Your task to perform on an android device: stop showing notifications on the lock screen Image 0: 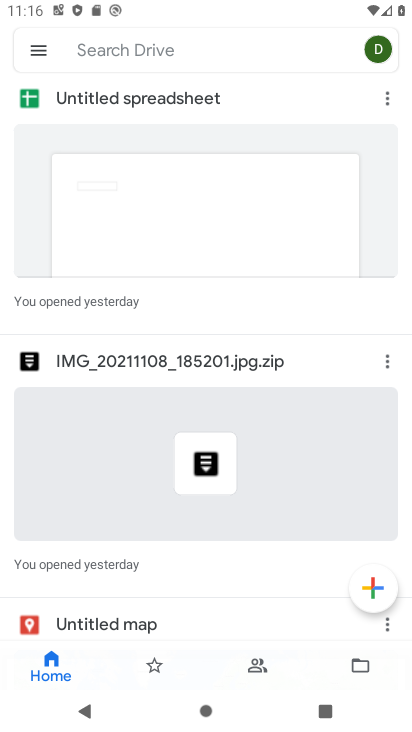
Step 0: press home button
Your task to perform on an android device: stop showing notifications on the lock screen Image 1: 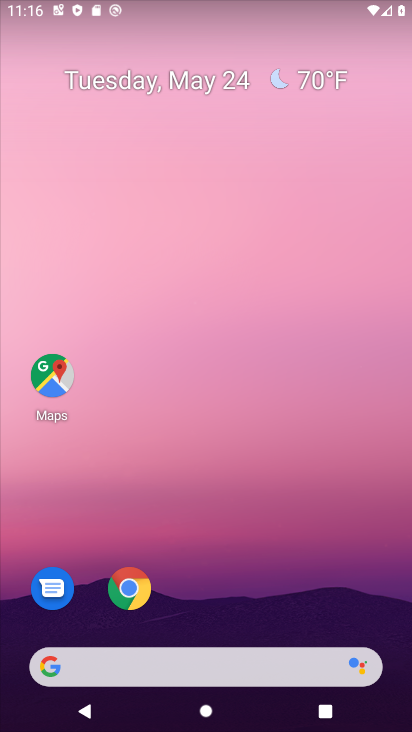
Step 1: drag from (201, 603) to (194, 32)
Your task to perform on an android device: stop showing notifications on the lock screen Image 2: 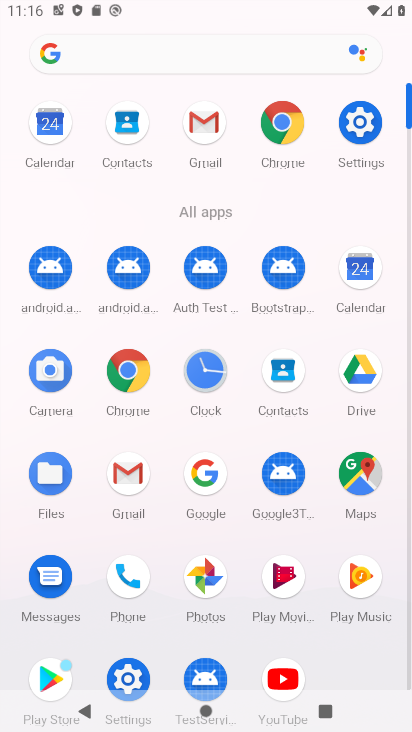
Step 2: click (357, 117)
Your task to perform on an android device: stop showing notifications on the lock screen Image 3: 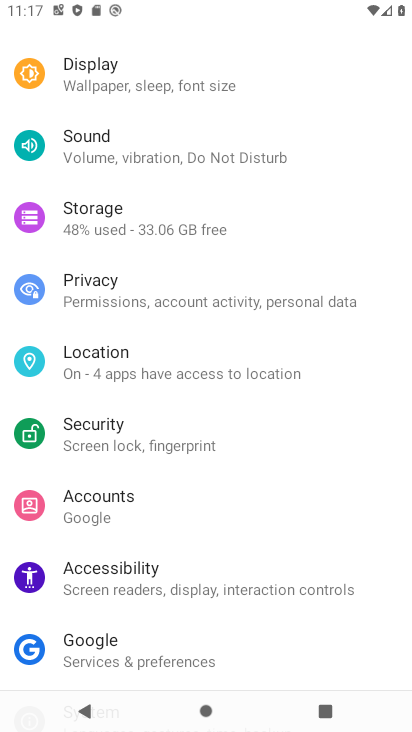
Step 3: drag from (153, 114) to (174, 589)
Your task to perform on an android device: stop showing notifications on the lock screen Image 4: 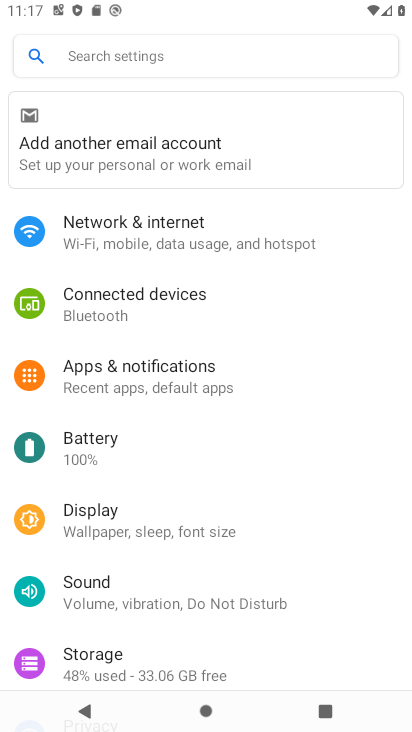
Step 4: click (236, 363)
Your task to perform on an android device: stop showing notifications on the lock screen Image 5: 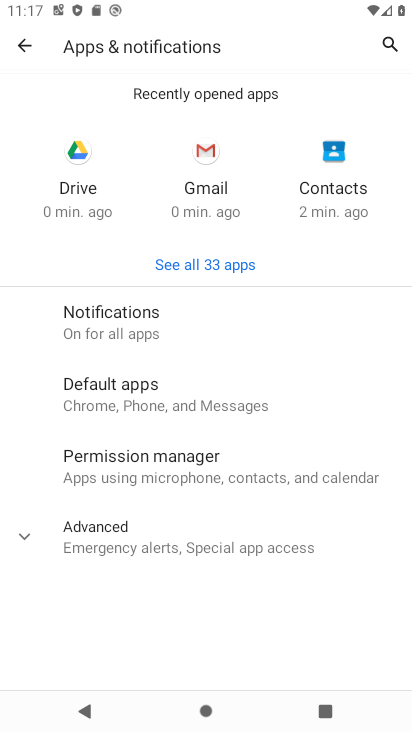
Step 5: click (172, 319)
Your task to perform on an android device: stop showing notifications on the lock screen Image 6: 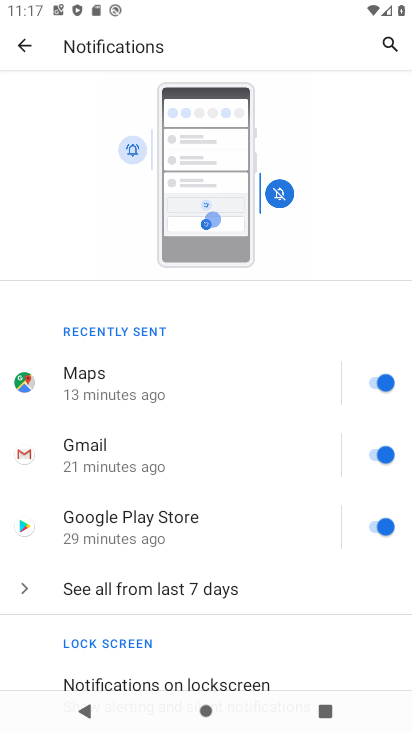
Step 6: drag from (216, 641) to (227, 302)
Your task to perform on an android device: stop showing notifications on the lock screen Image 7: 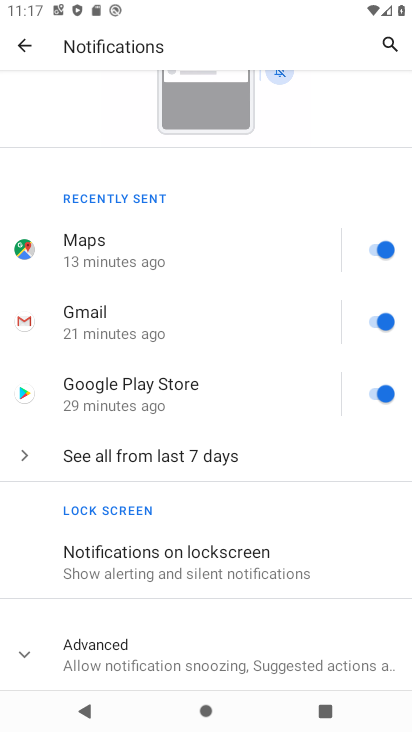
Step 7: click (285, 555)
Your task to perform on an android device: stop showing notifications on the lock screen Image 8: 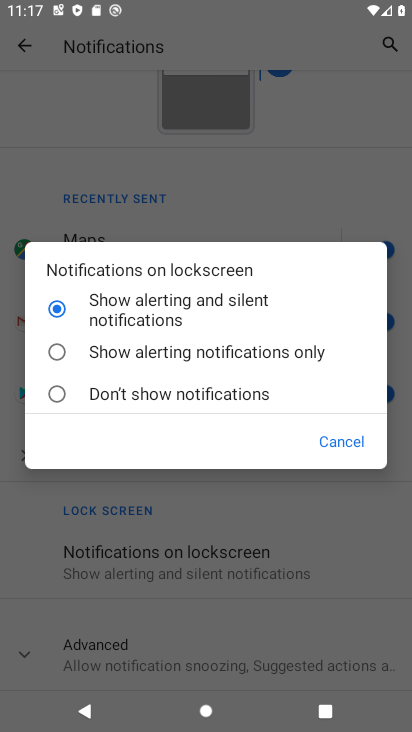
Step 8: click (54, 387)
Your task to perform on an android device: stop showing notifications on the lock screen Image 9: 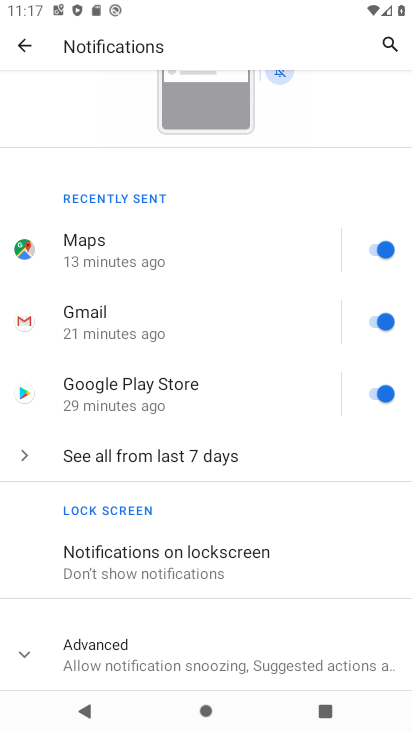
Step 9: task complete